Your task to perform on an android device: stop showing notifications on the lock screen Image 0: 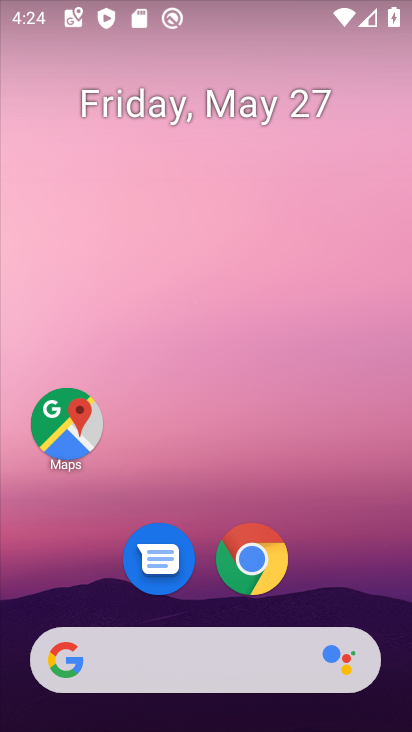
Step 0: drag from (392, 640) to (342, 168)
Your task to perform on an android device: stop showing notifications on the lock screen Image 1: 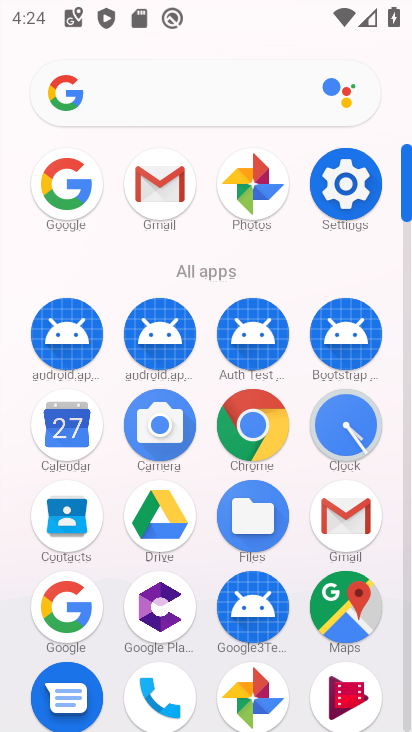
Step 1: click (334, 186)
Your task to perform on an android device: stop showing notifications on the lock screen Image 2: 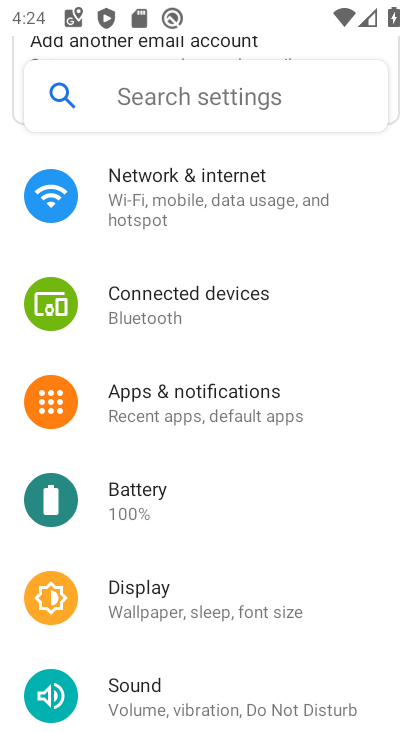
Step 2: click (152, 401)
Your task to perform on an android device: stop showing notifications on the lock screen Image 3: 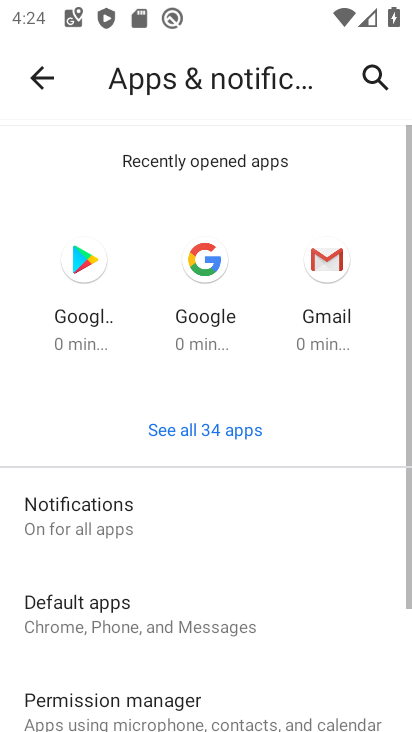
Step 3: click (94, 498)
Your task to perform on an android device: stop showing notifications on the lock screen Image 4: 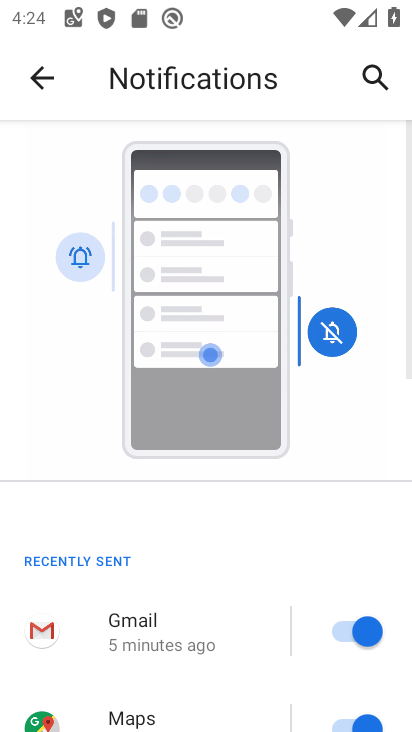
Step 4: drag from (244, 711) to (266, 40)
Your task to perform on an android device: stop showing notifications on the lock screen Image 5: 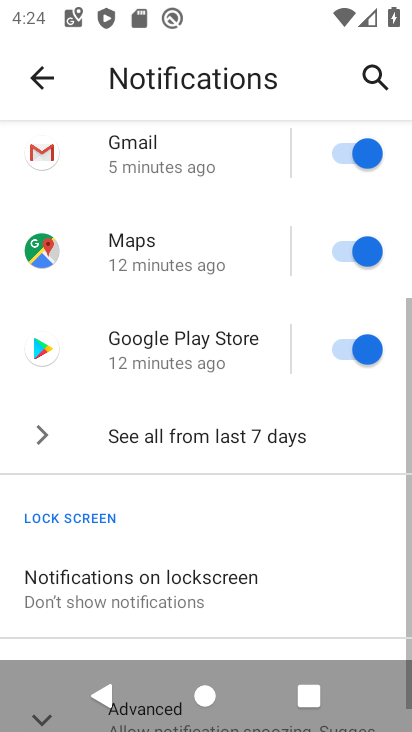
Step 5: drag from (237, 633) to (234, 226)
Your task to perform on an android device: stop showing notifications on the lock screen Image 6: 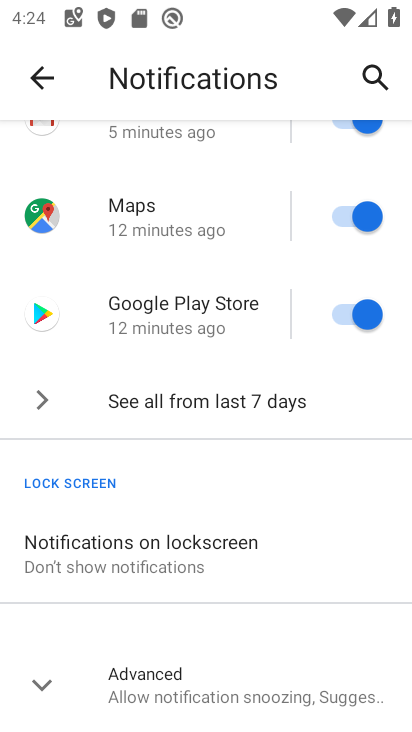
Step 6: click (69, 557)
Your task to perform on an android device: stop showing notifications on the lock screen Image 7: 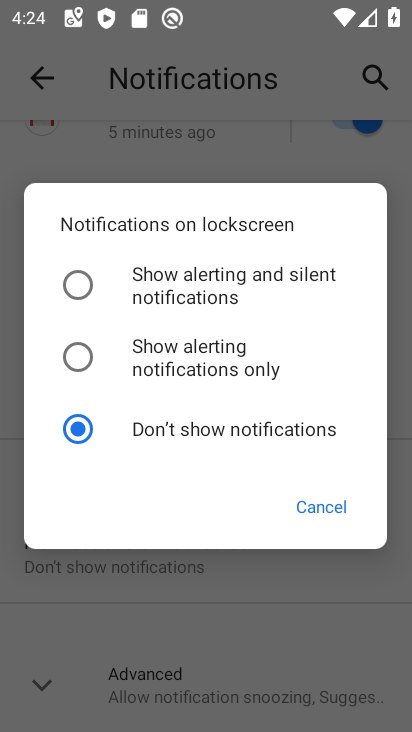
Step 7: task complete